Your task to perform on an android device: search for starred emails in the gmail app Image 0: 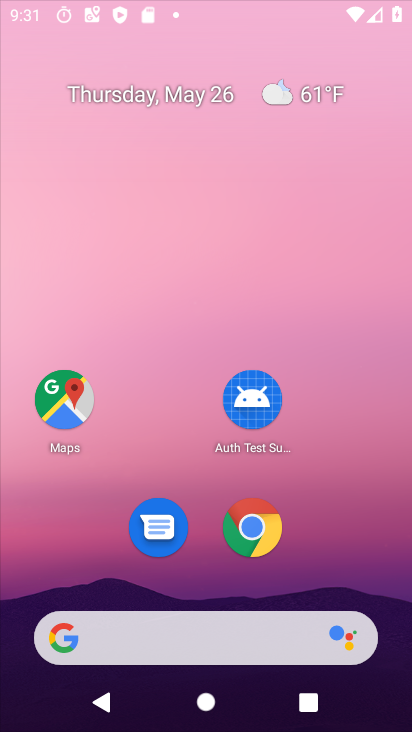
Step 0: drag from (318, 432) to (308, 95)
Your task to perform on an android device: search for starred emails in the gmail app Image 1: 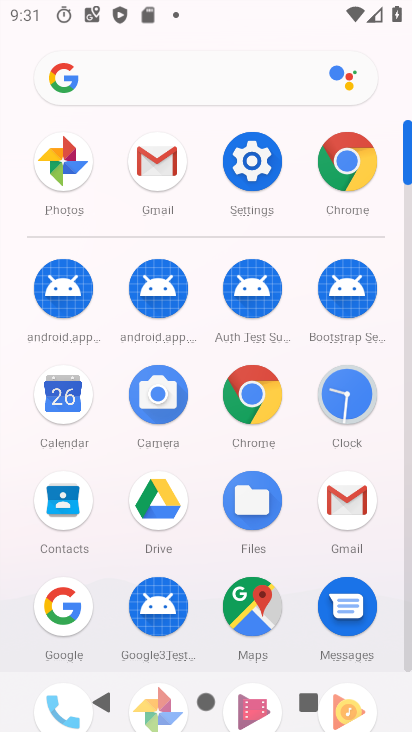
Step 1: click (172, 171)
Your task to perform on an android device: search for starred emails in the gmail app Image 2: 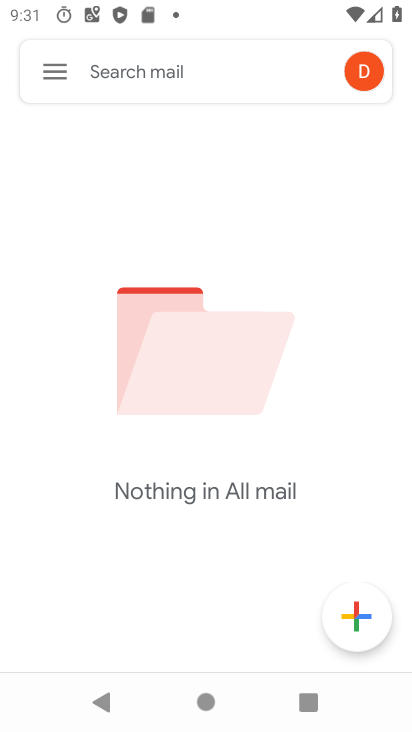
Step 2: click (61, 85)
Your task to perform on an android device: search for starred emails in the gmail app Image 3: 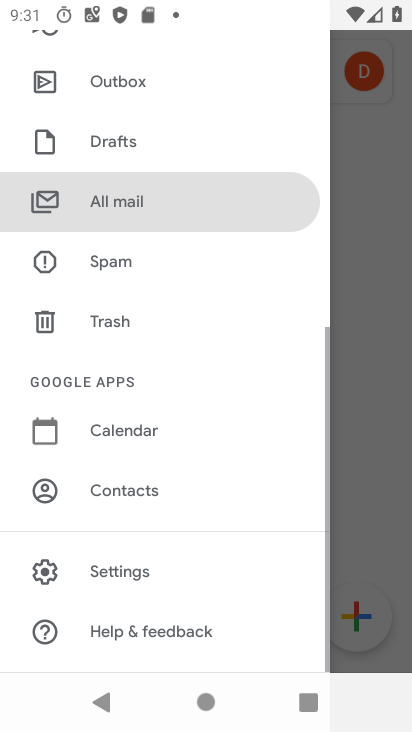
Step 3: drag from (106, 188) to (142, 605)
Your task to perform on an android device: search for starred emails in the gmail app Image 4: 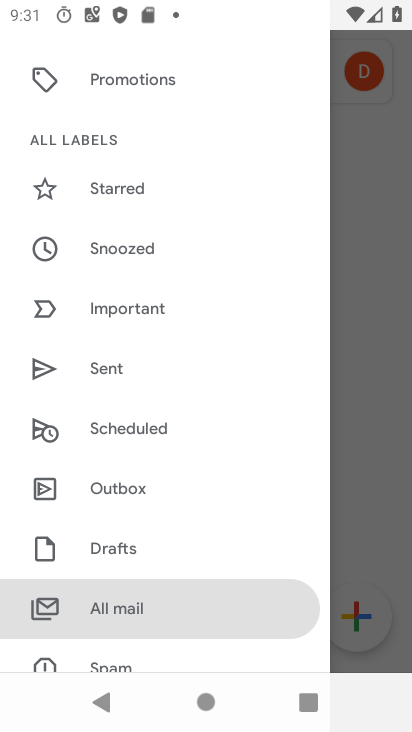
Step 4: click (104, 197)
Your task to perform on an android device: search for starred emails in the gmail app Image 5: 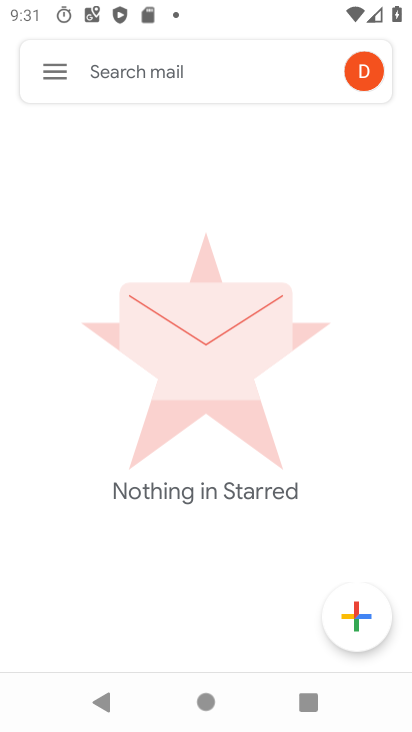
Step 5: task complete